Your task to perform on an android device: show emergency info Image 0: 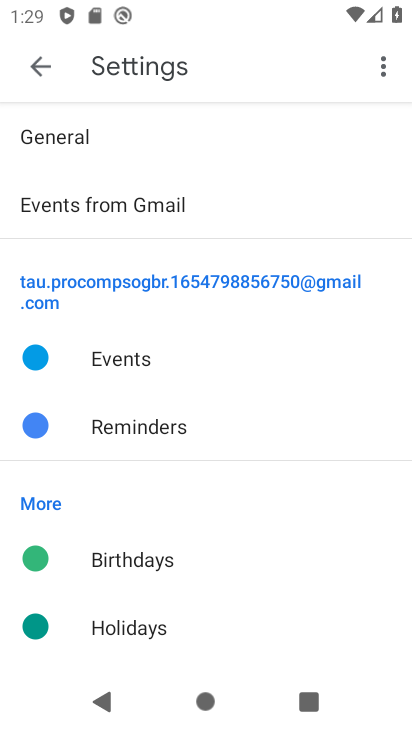
Step 0: press home button
Your task to perform on an android device: show emergency info Image 1: 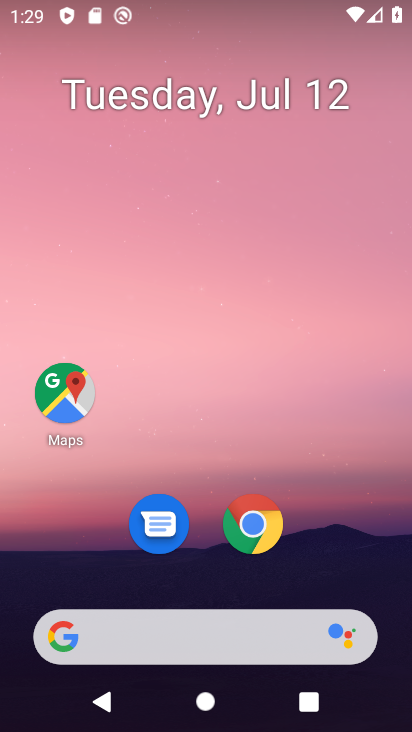
Step 1: drag from (311, 561) to (331, 35)
Your task to perform on an android device: show emergency info Image 2: 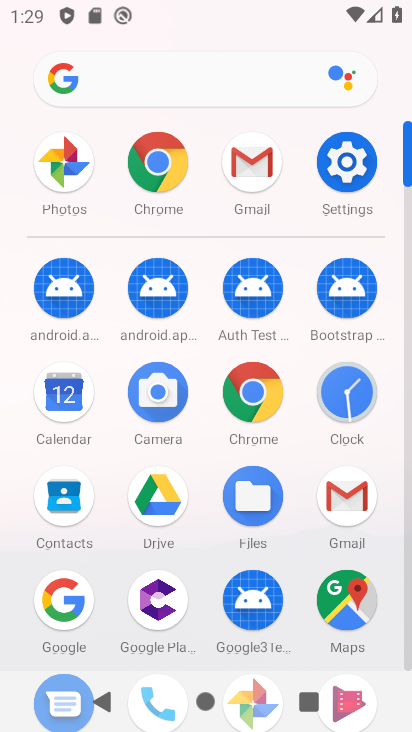
Step 2: click (343, 156)
Your task to perform on an android device: show emergency info Image 3: 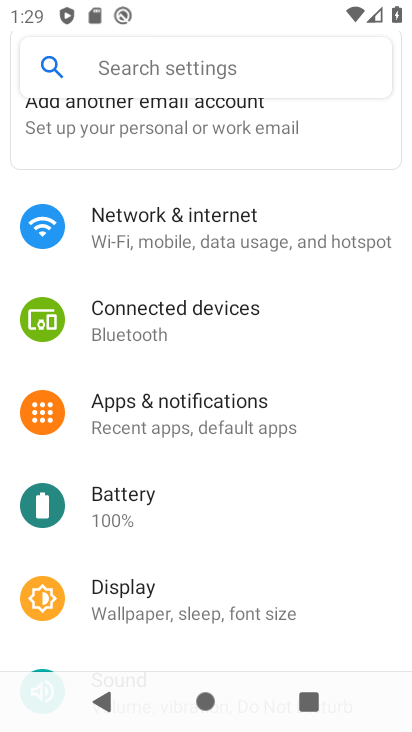
Step 3: drag from (221, 529) to (285, 134)
Your task to perform on an android device: show emergency info Image 4: 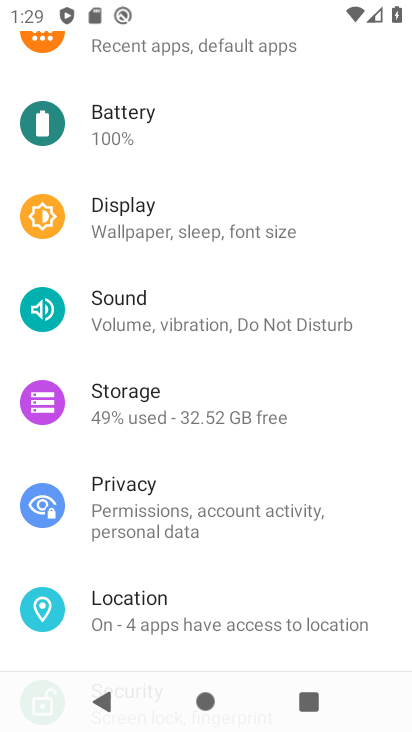
Step 4: drag from (200, 451) to (241, 143)
Your task to perform on an android device: show emergency info Image 5: 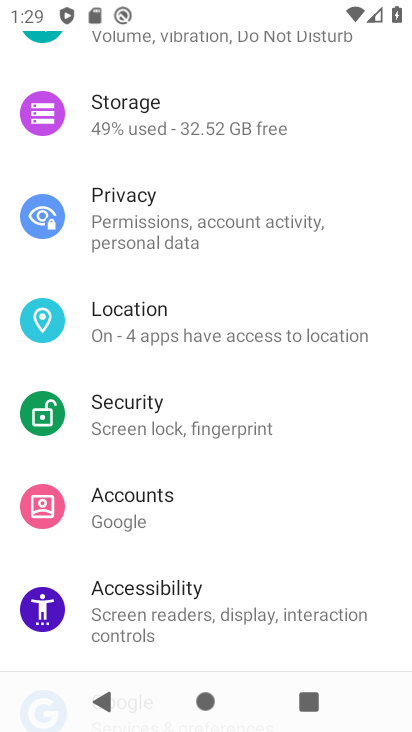
Step 5: drag from (204, 465) to (264, 104)
Your task to perform on an android device: show emergency info Image 6: 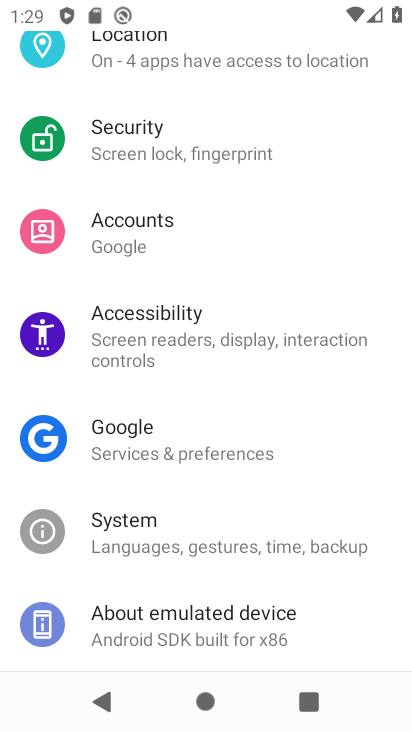
Step 6: click (176, 614)
Your task to perform on an android device: show emergency info Image 7: 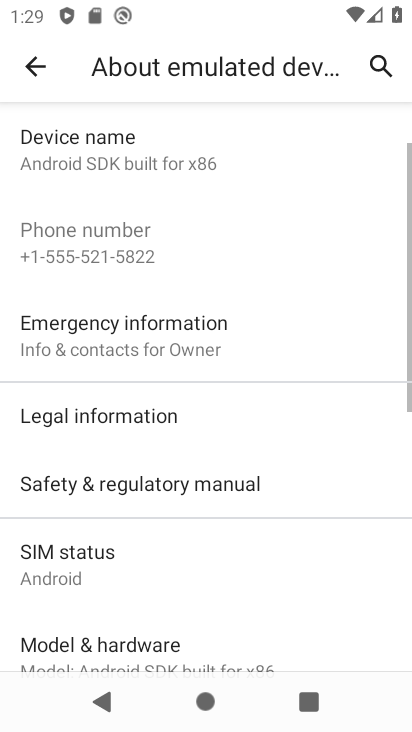
Step 7: click (198, 339)
Your task to perform on an android device: show emergency info Image 8: 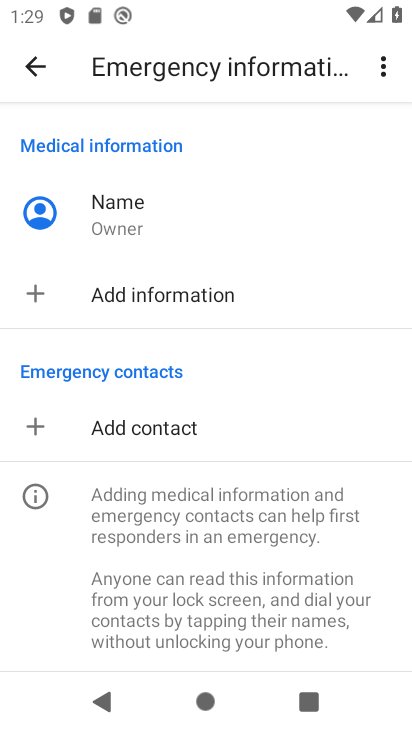
Step 8: task complete